Your task to perform on an android device: Open the Play Movies app and select the watchlist tab. Image 0: 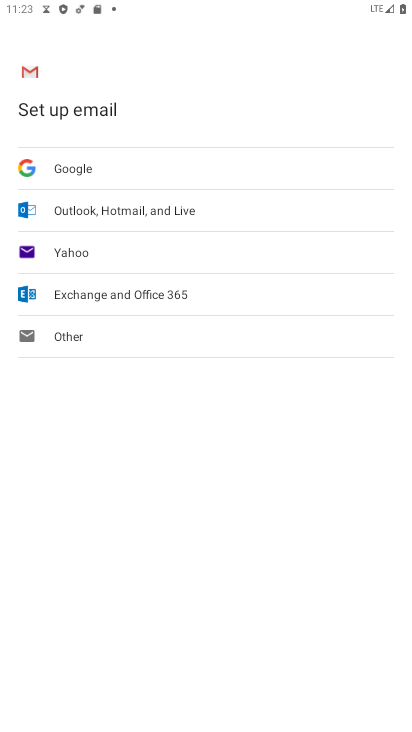
Step 0: press back button
Your task to perform on an android device: Open the Play Movies app and select the watchlist tab. Image 1: 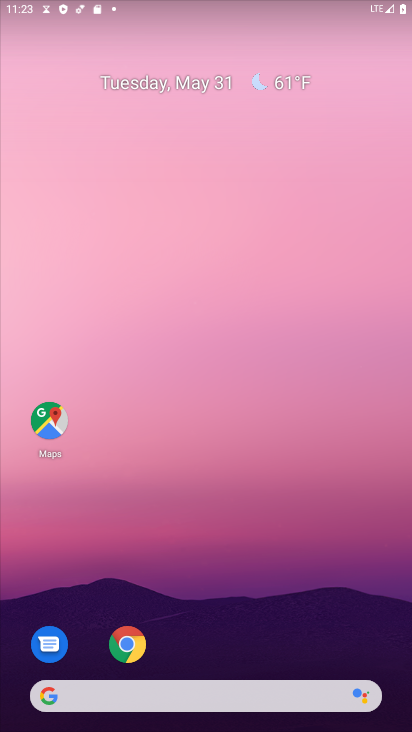
Step 1: drag from (275, 527) to (303, 77)
Your task to perform on an android device: Open the Play Movies app and select the watchlist tab. Image 2: 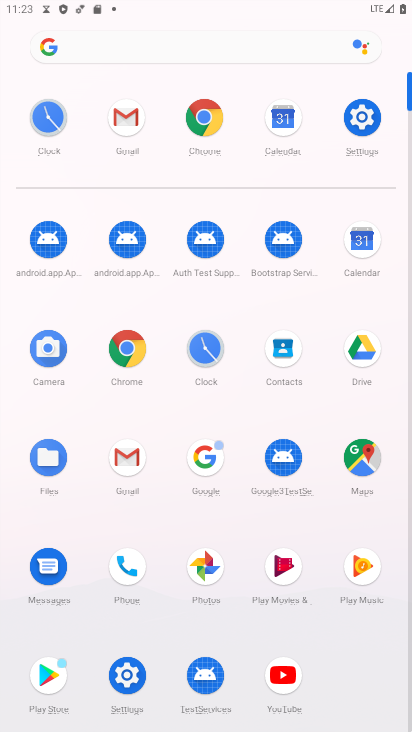
Step 2: click (281, 569)
Your task to perform on an android device: Open the Play Movies app and select the watchlist tab. Image 3: 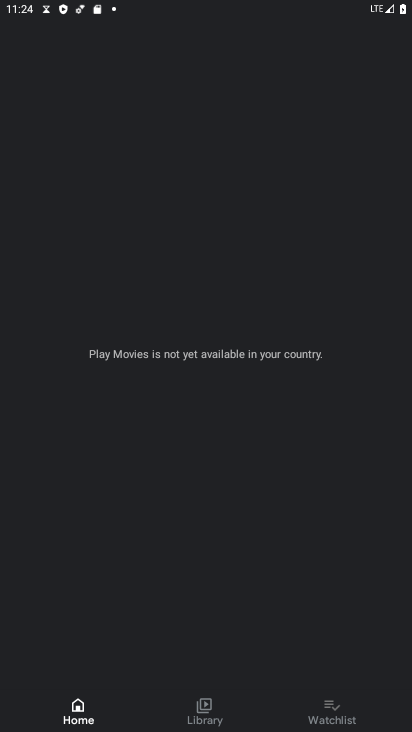
Step 3: click (323, 718)
Your task to perform on an android device: Open the Play Movies app and select the watchlist tab. Image 4: 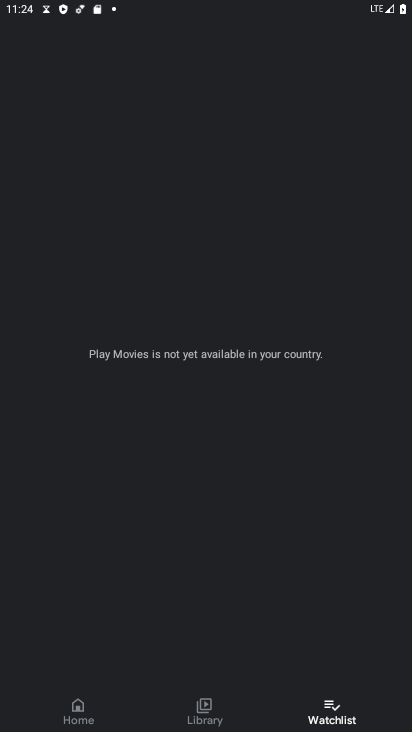
Step 4: task complete